Your task to perform on an android device: When is my next appointment? Image 0: 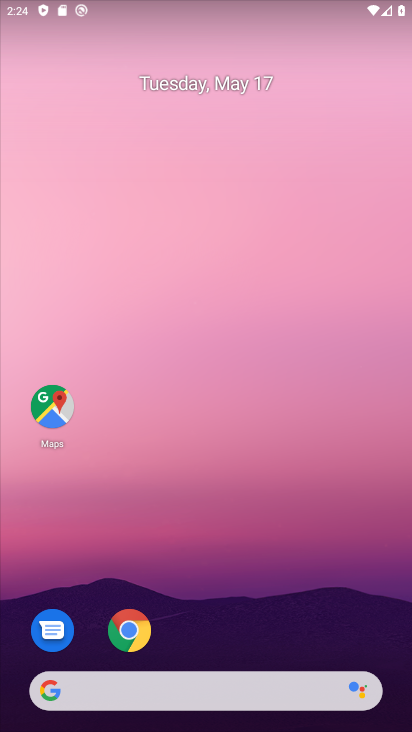
Step 0: drag from (216, 645) to (247, 2)
Your task to perform on an android device: When is my next appointment? Image 1: 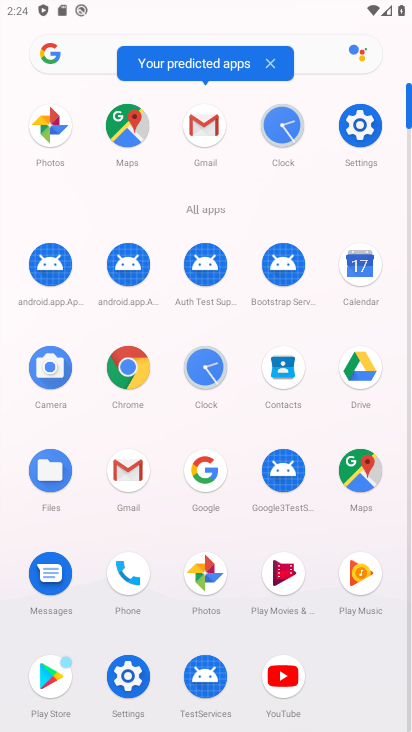
Step 1: drag from (319, 463) to (327, 188)
Your task to perform on an android device: When is my next appointment? Image 2: 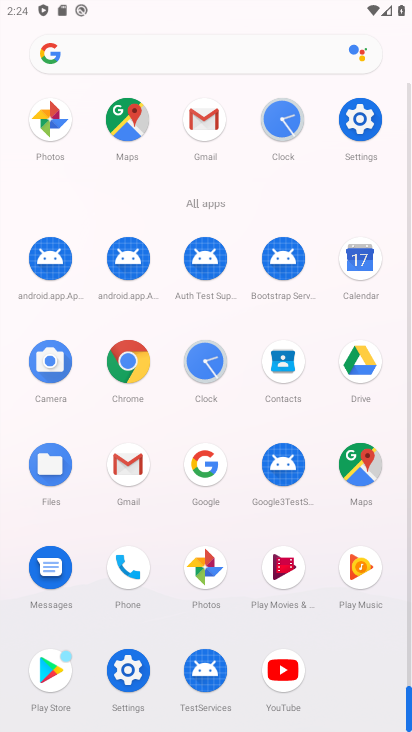
Step 2: drag from (327, 193) to (325, 274)
Your task to perform on an android device: When is my next appointment? Image 3: 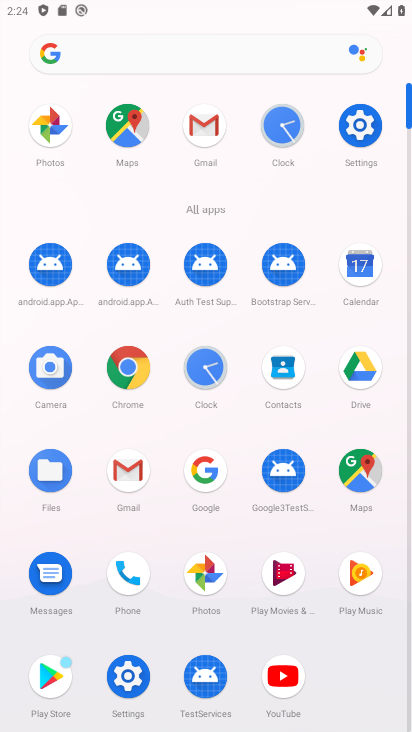
Step 3: click (358, 270)
Your task to perform on an android device: When is my next appointment? Image 4: 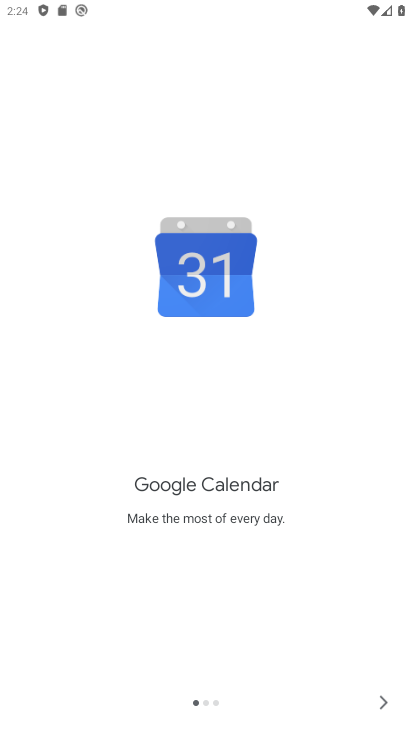
Step 4: click (388, 700)
Your task to perform on an android device: When is my next appointment? Image 5: 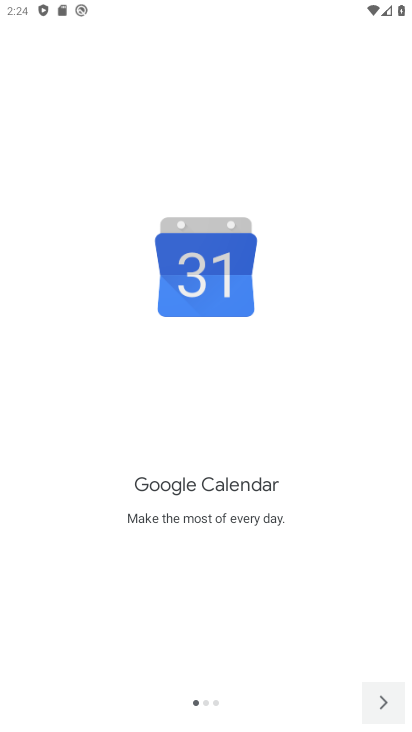
Step 5: click (387, 673)
Your task to perform on an android device: When is my next appointment? Image 6: 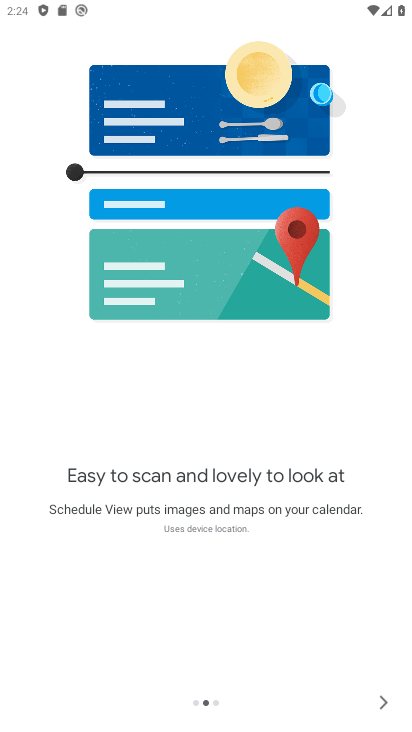
Step 6: click (381, 703)
Your task to perform on an android device: When is my next appointment? Image 7: 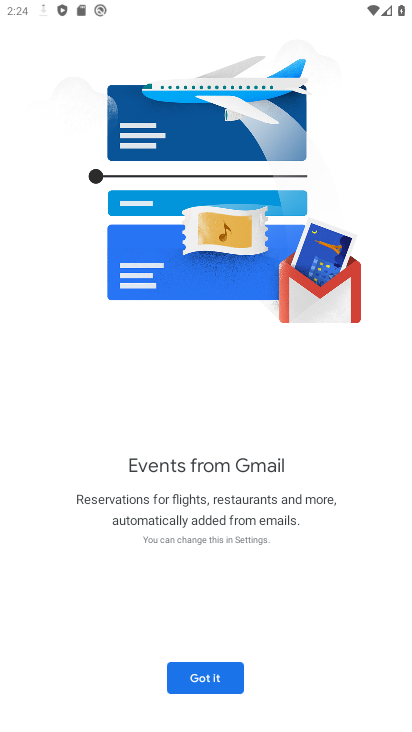
Step 7: click (178, 671)
Your task to perform on an android device: When is my next appointment? Image 8: 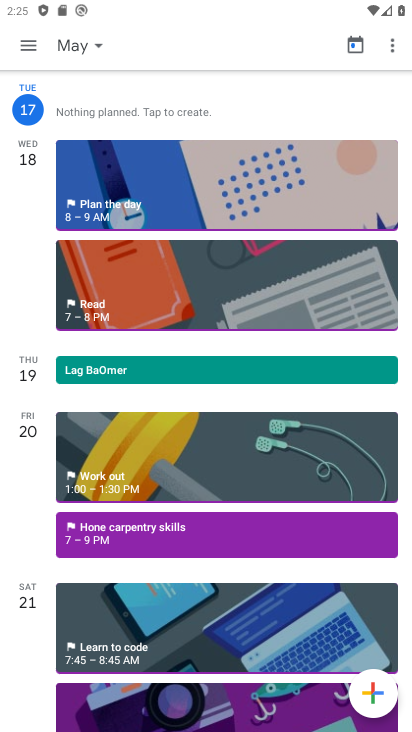
Step 8: click (64, 41)
Your task to perform on an android device: When is my next appointment? Image 9: 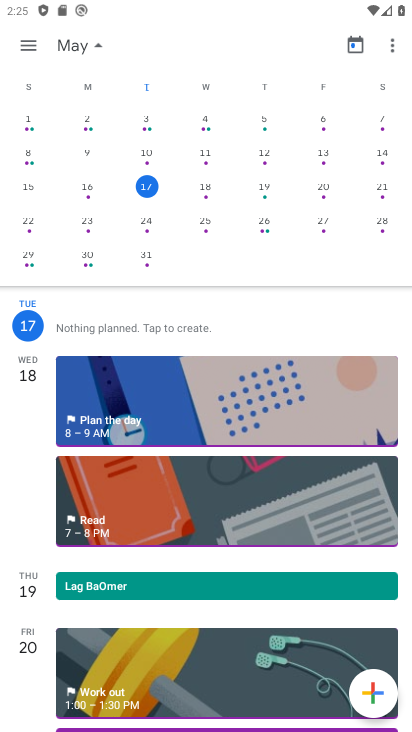
Step 9: task complete